Your task to perform on an android device: turn on data saver in the chrome app Image 0: 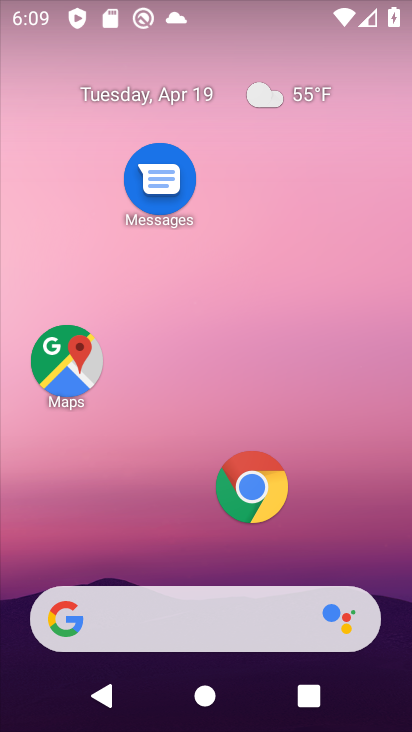
Step 0: click (249, 481)
Your task to perform on an android device: turn on data saver in the chrome app Image 1: 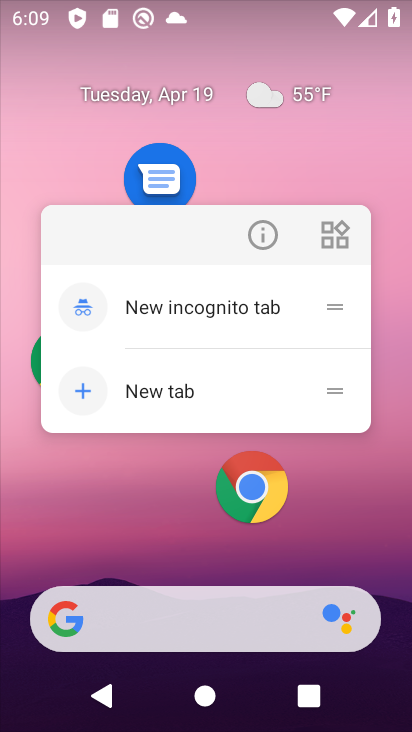
Step 1: click (250, 483)
Your task to perform on an android device: turn on data saver in the chrome app Image 2: 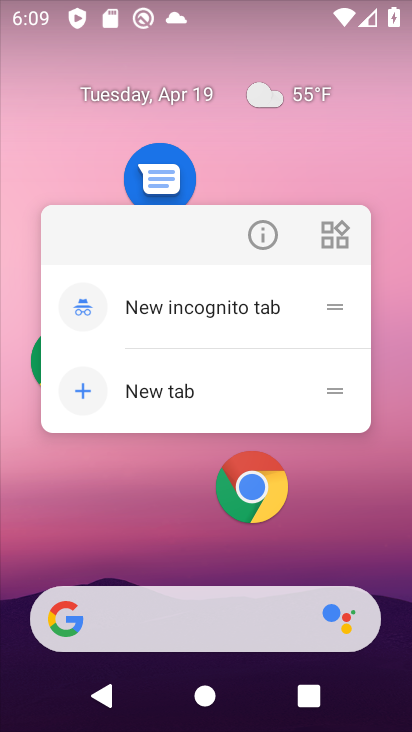
Step 2: click (250, 483)
Your task to perform on an android device: turn on data saver in the chrome app Image 3: 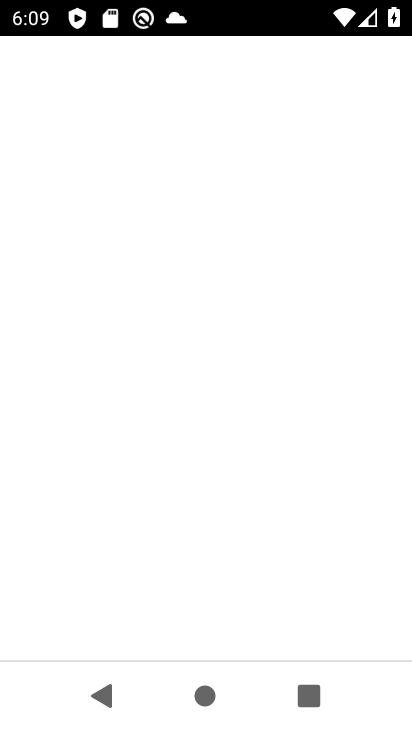
Step 3: drag from (302, 545) to (324, 117)
Your task to perform on an android device: turn on data saver in the chrome app Image 4: 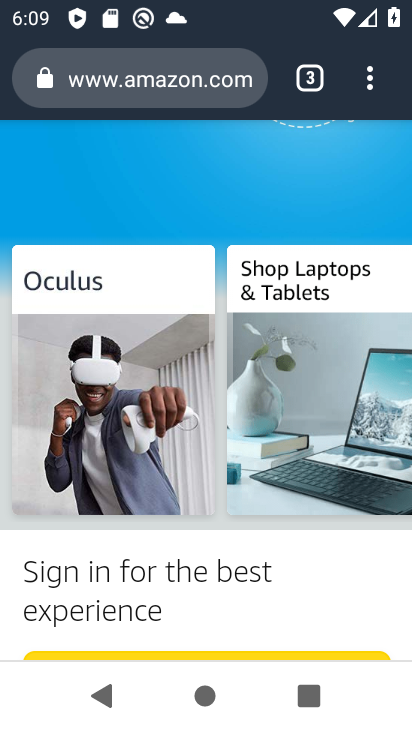
Step 4: click (375, 92)
Your task to perform on an android device: turn on data saver in the chrome app Image 5: 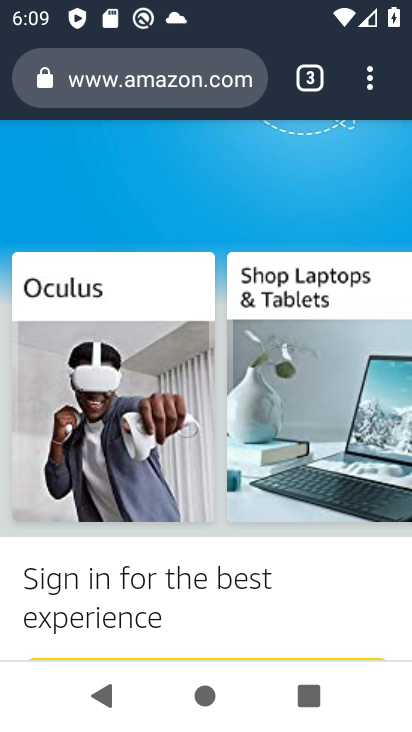
Step 5: click (370, 78)
Your task to perform on an android device: turn on data saver in the chrome app Image 6: 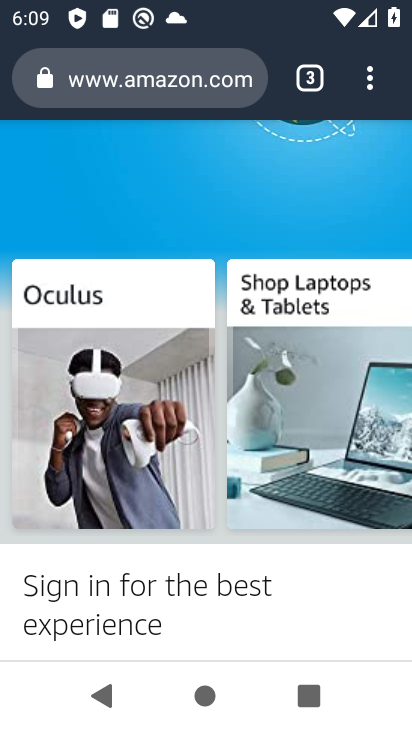
Step 6: click (369, 79)
Your task to perform on an android device: turn on data saver in the chrome app Image 7: 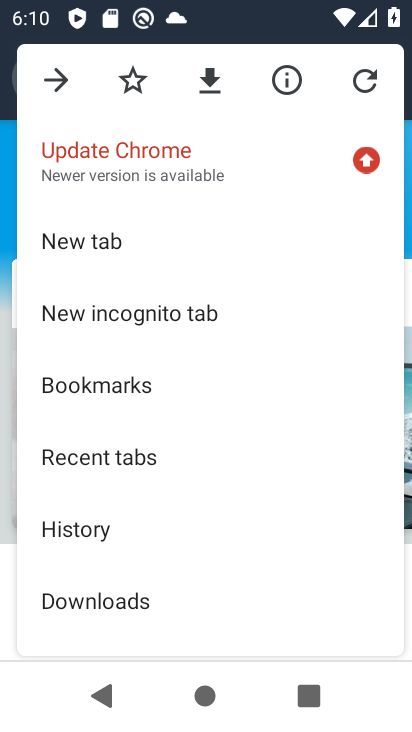
Step 7: drag from (182, 588) to (194, 179)
Your task to perform on an android device: turn on data saver in the chrome app Image 8: 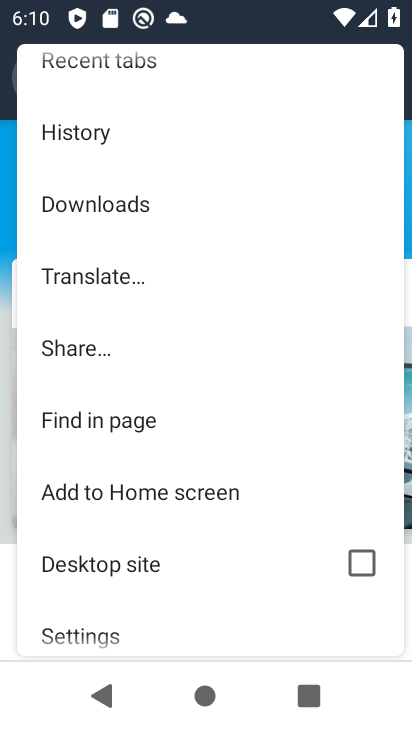
Step 8: drag from (195, 588) to (256, 161)
Your task to perform on an android device: turn on data saver in the chrome app Image 9: 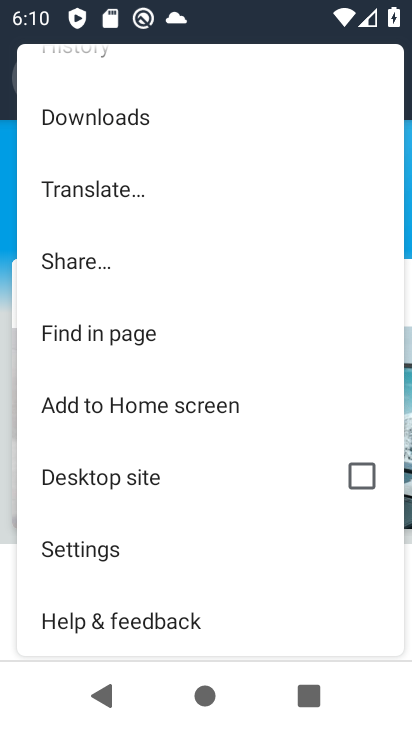
Step 9: click (149, 552)
Your task to perform on an android device: turn on data saver in the chrome app Image 10: 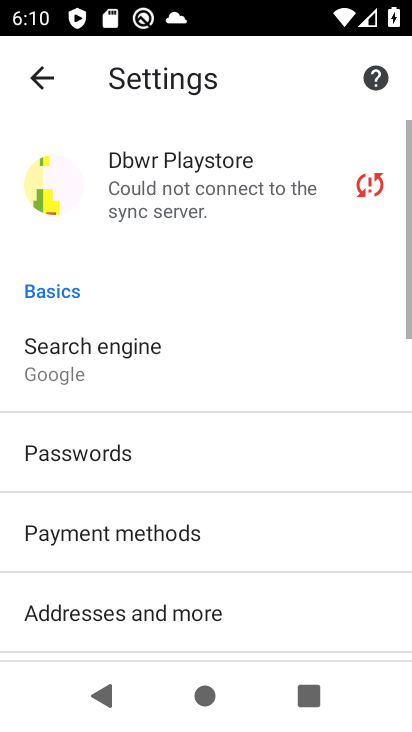
Step 10: drag from (242, 584) to (265, 115)
Your task to perform on an android device: turn on data saver in the chrome app Image 11: 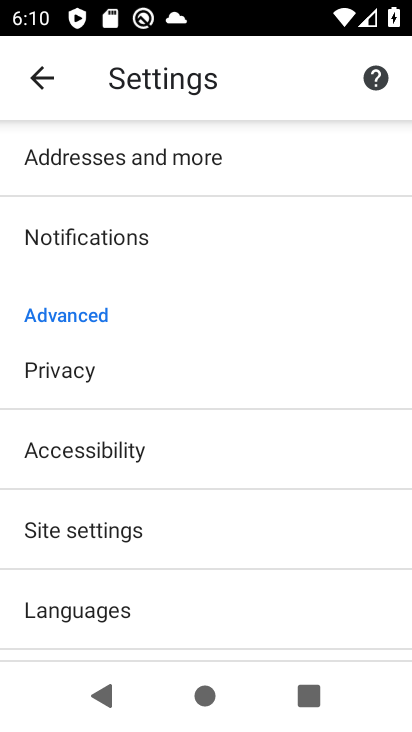
Step 11: drag from (176, 605) to (224, 238)
Your task to perform on an android device: turn on data saver in the chrome app Image 12: 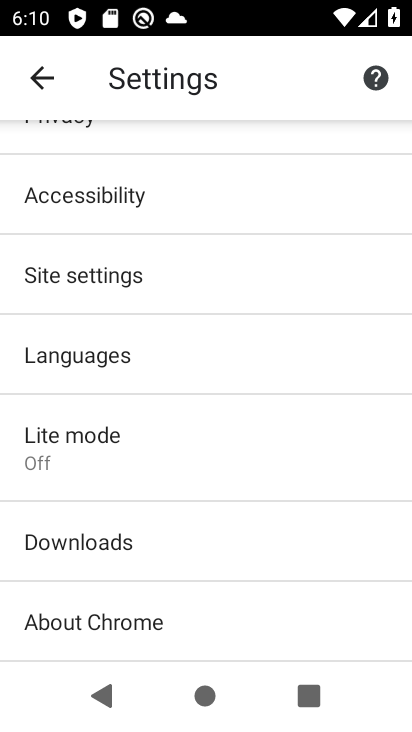
Step 12: click (104, 458)
Your task to perform on an android device: turn on data saver in the chrome app Image 13: 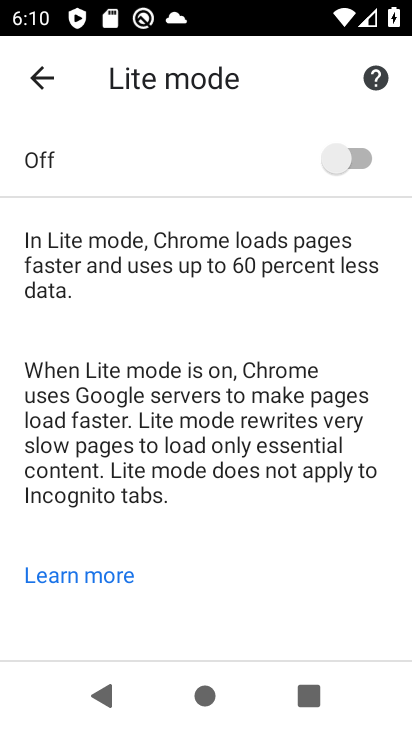
Step 13: click (358, 165)
Your task to perform on an android device: turn on data saver in the chrome app Image 14: 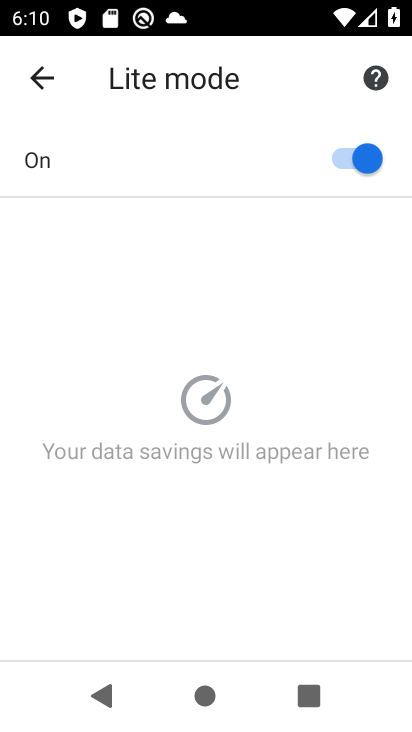
Step 14: task complete